Your task to perform on an android device: open a new tab in the chrome app Image 0: 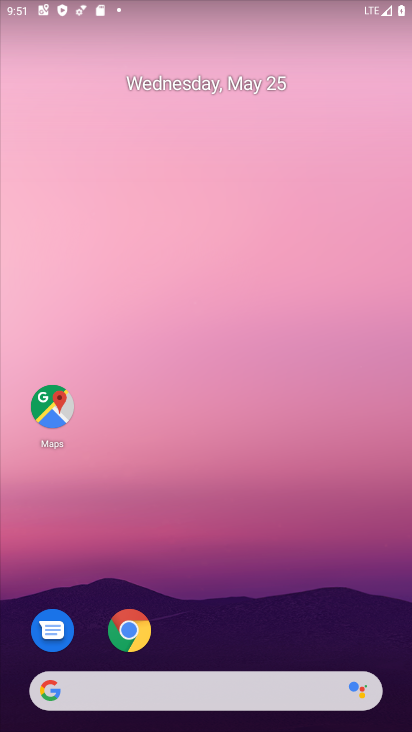
Step 0: click (138, 627)
Your task to perform on an android device: open a new tab in the chrome app Image 1: 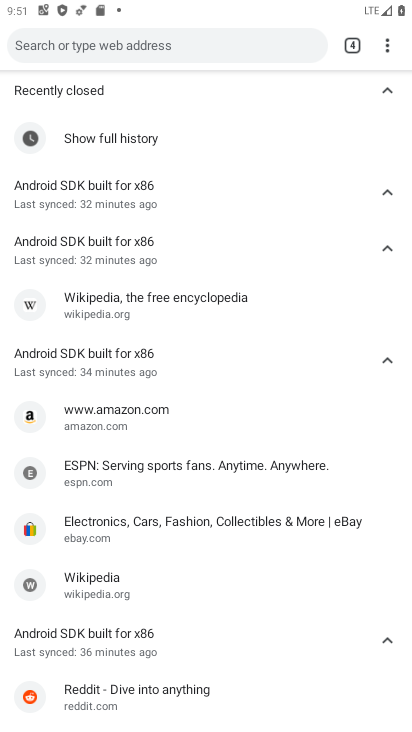
Step 1: task complete